Your task to perform on an android device: turn on translation in the chrome app Image 0: 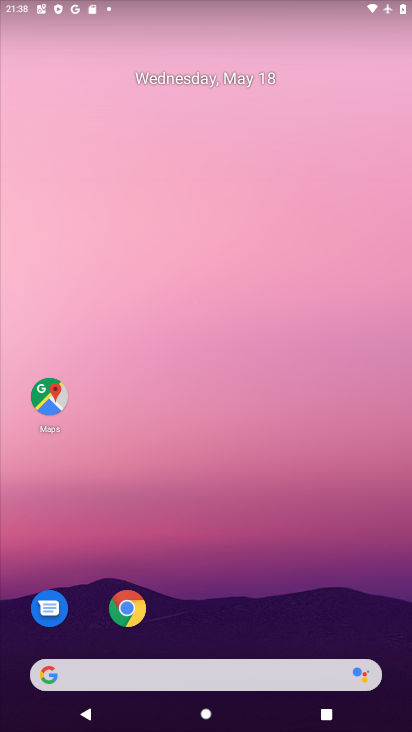
Step 0: click (127, 620)
Your task to perform on an android device: turn on translation in the chrome app Image 1: 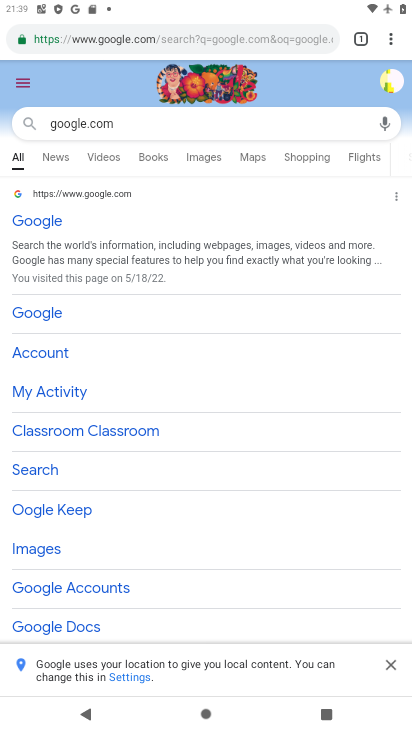
Step 1: click (395, 35)
Your task to perform on an android device: turn on translation in the chrome app Image 2: 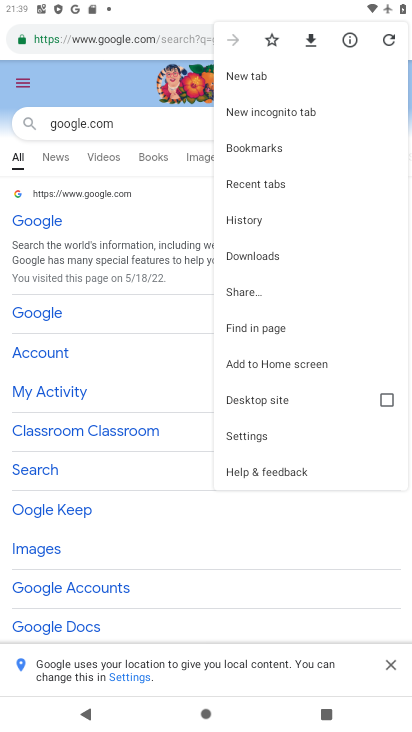
Step 2: click (285, 443)
Your task to perform on an android device: turn on translation in the chrome app Image 3: 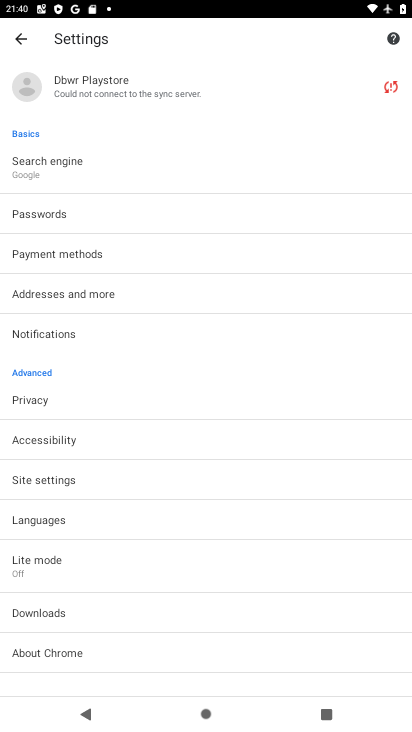
Step 3: click (120, 528)
Your task to perform on an android device: turn on translation in the chrome app Image 4: 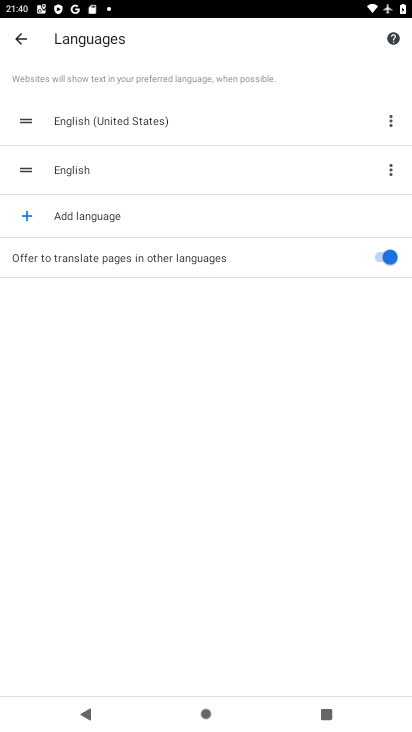
Step 4: click (379, 257)
Your task to perform on an android device: turn on translation in the chrome app Image 5: 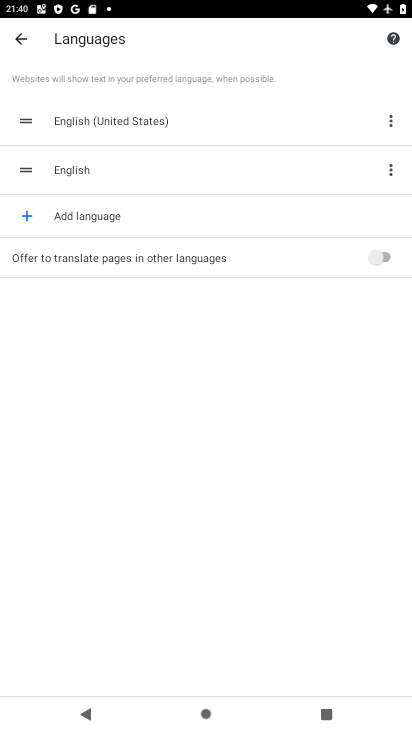
Step 5: click (379, 257)
Your task to perform on an android device: turn on translation in the chrome app Image 6: 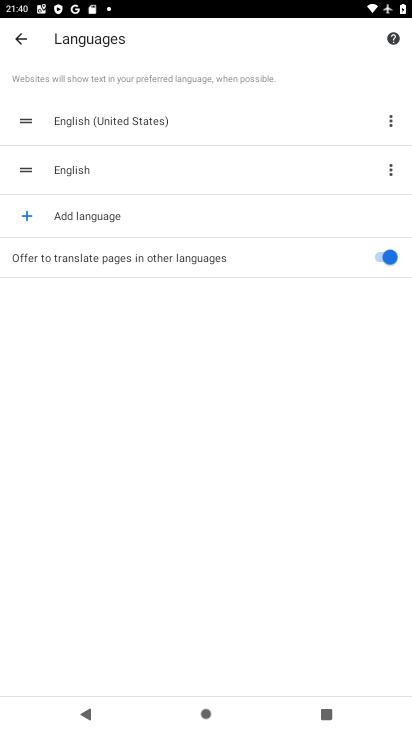
Step 6: task complete